Your task to perform on an android device: Open battery settings Image 0: 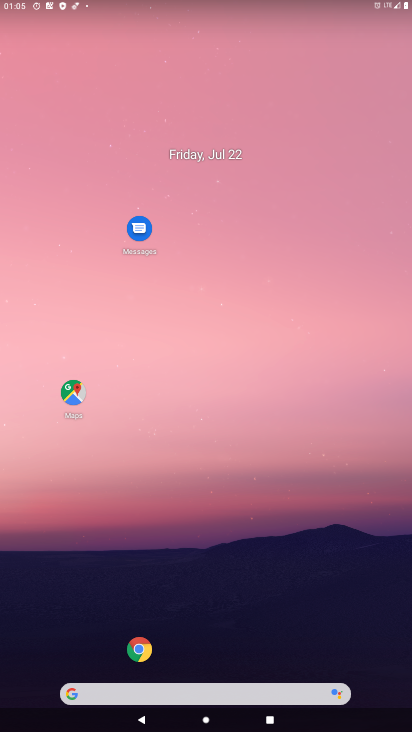
Step 0: drag from (33, 695) to (258, 145)
Your task to perform on an android device: Open battery settings Image 1: 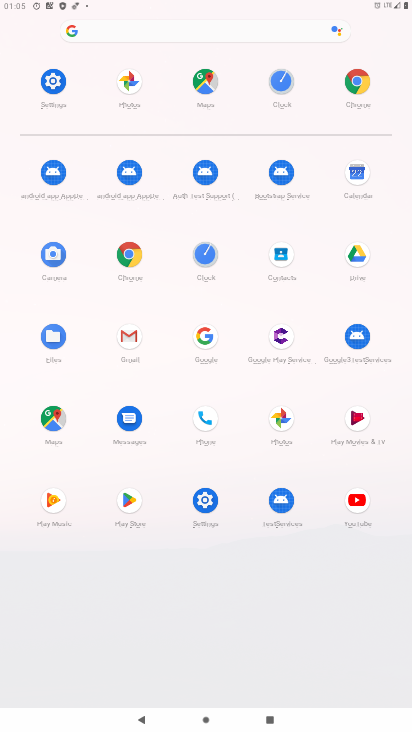
Step 1: click (199, 508)
Your task to perform on an android device: Open battery settings Image 2: 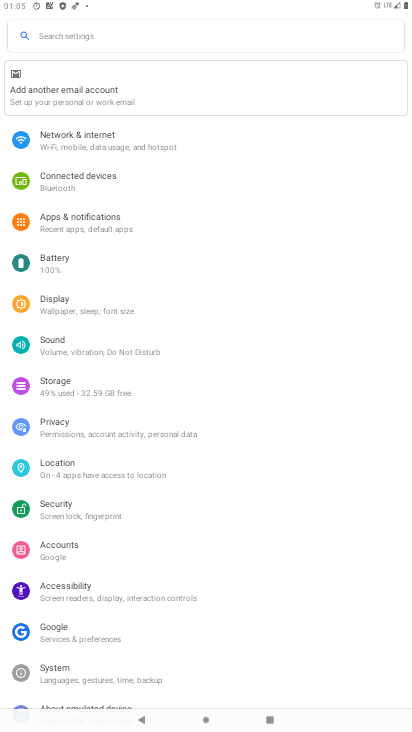
Step 2: click (74, 268)
Your task to perform on an android device: Open battery settings Image 3: 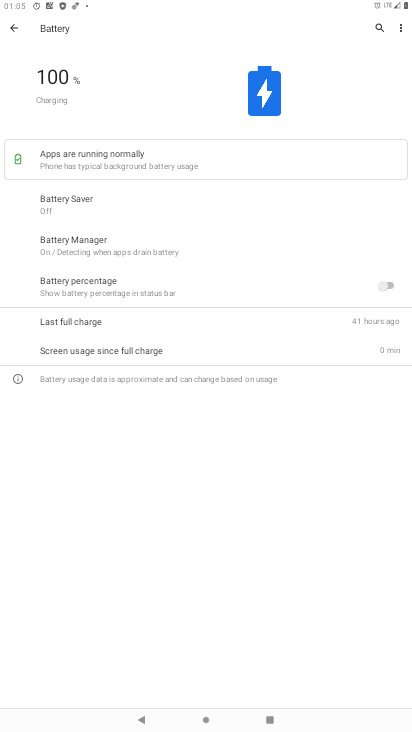
Step 3: task complete